Your task to perform on an android device: turn off location Image 0: 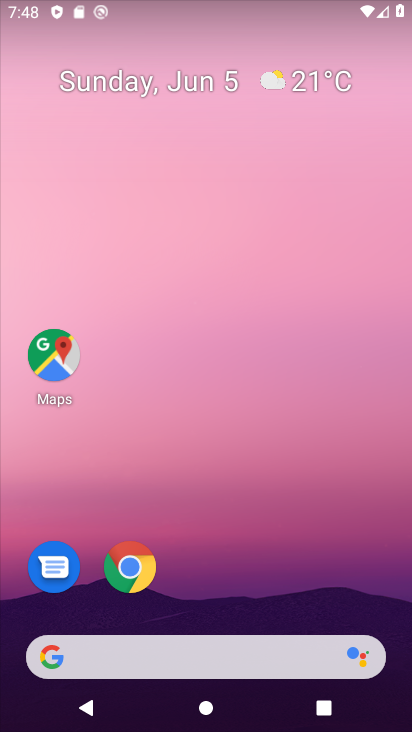
Step 0: drag from (240, 637) to (294, 206)
Your task to perform on an android device: turn off location Image 1: 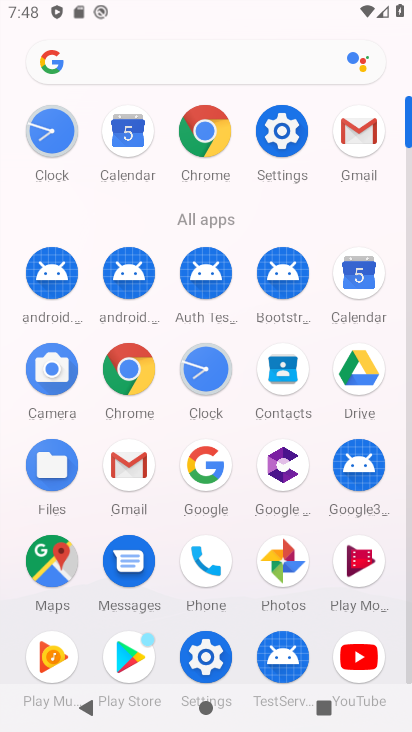
Step 1: click (286, 132)
Your task to perform on an android device: turn off location Image 2: 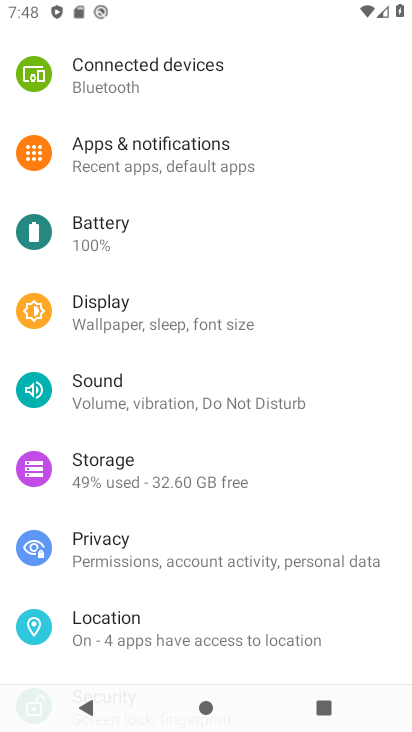
Step 2: click (156, 631)
Your task to perform on an android device: turn off location Image 3: 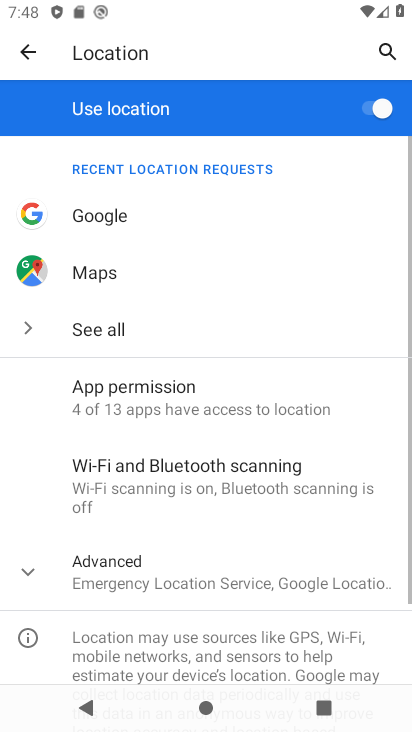
Step 3: click (376, 107)
Your task to perform on an android device: turn off location Image 4: 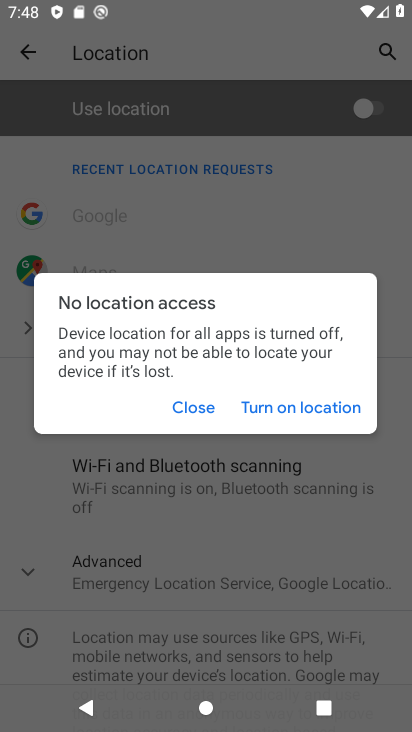
Step 4: click (210, 411)
Your task to perform on an android device: turn off location Image 5: 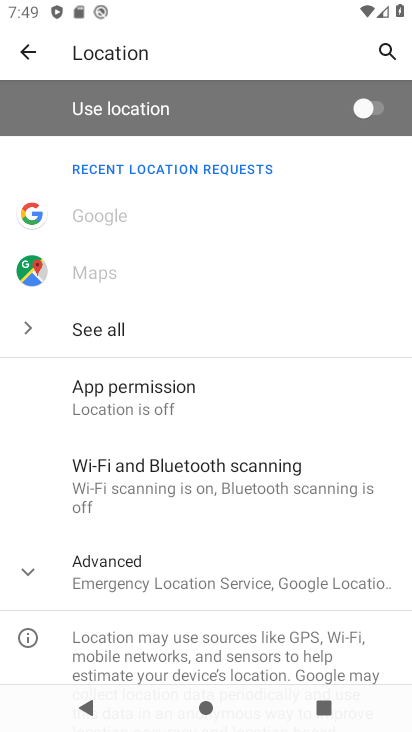
Step 5: task complete